Your task to perform on an android device: Go to CNN.com Image 0: 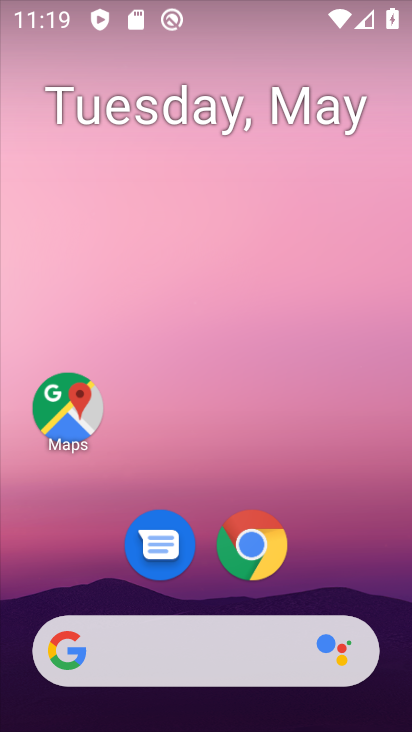
Step 0: click (252, 544)
Your task to perform on an android device: Go to CNN.com Image 1: 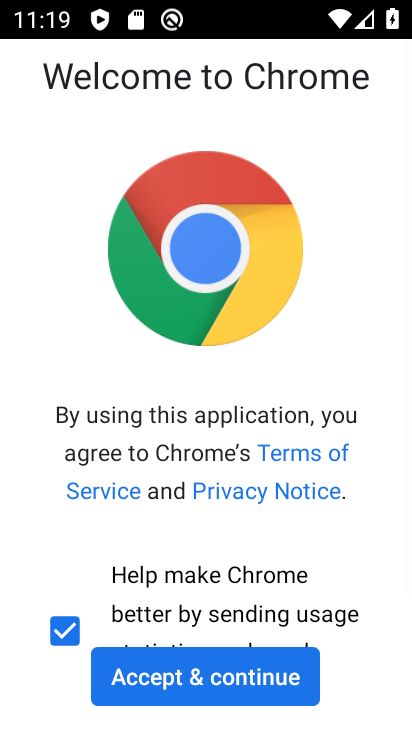
Step 1: click (140, 672)
Your task to perform on an android device: Go to CNN.com Image 2: 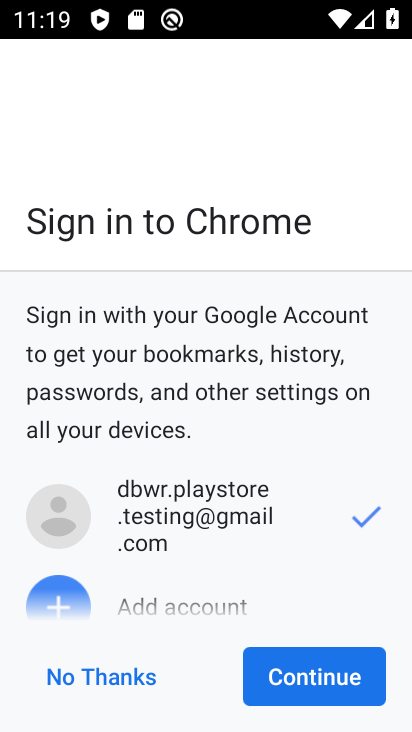
Step 2: click (300, 677)
Your task to perform on an android device: Go to CNN.com Image 3: 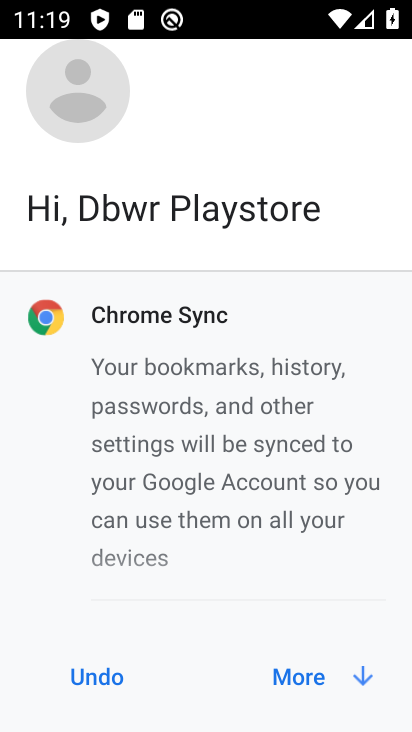
Step 3: click (294, 684)
Your task to perform on an android device: Go to CNN.com Image 4: 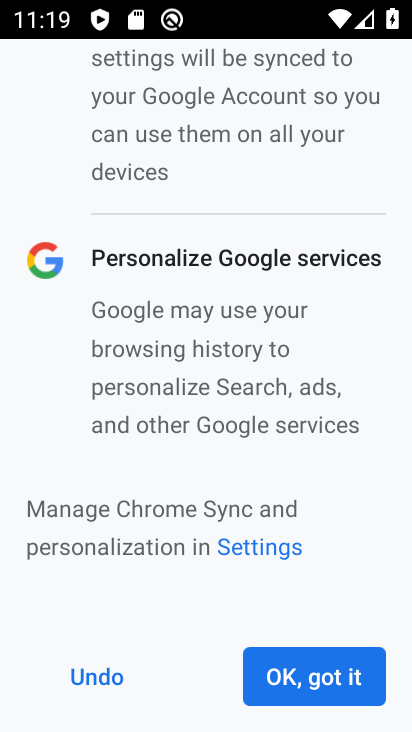
Step 4: click (329, 685)
Your task to perform on an android device: Go to CNN.com Image 5: 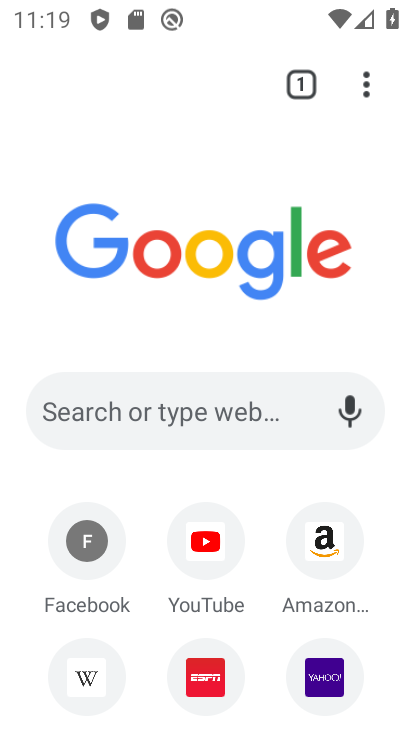
Step 5: click (211, 406)
Your task to perform on an android device: Go to CNN.com Image 6: 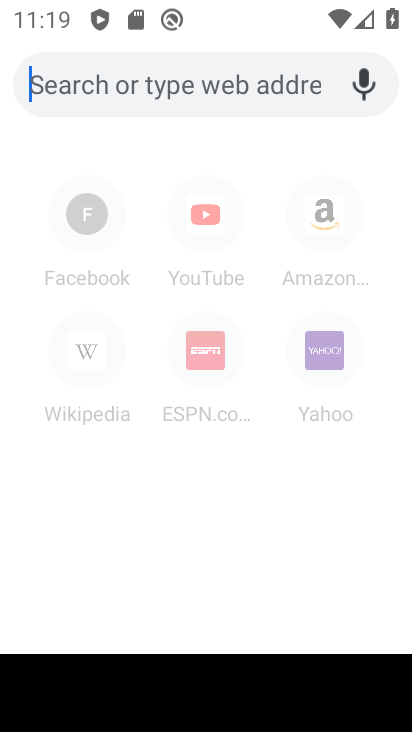
Step 6: type "CNN.com"
Your task to perform on an android device: Go to CNN.com Image 7: 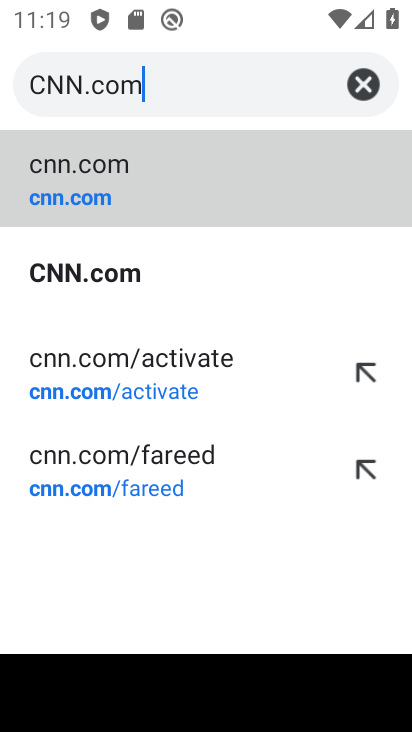
Step 7: click (176, 193)
Your task to perform on an android device: Go to CNN.com Image 8: 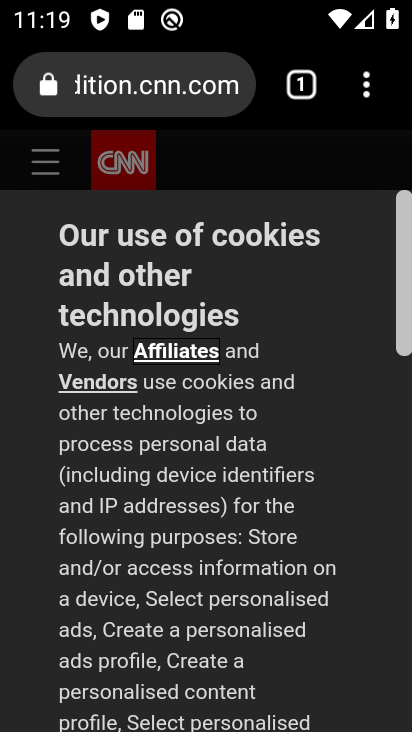
Step 8: task complete